Your task to perform on an android device: turn on data saver in the chrome app Image 0: 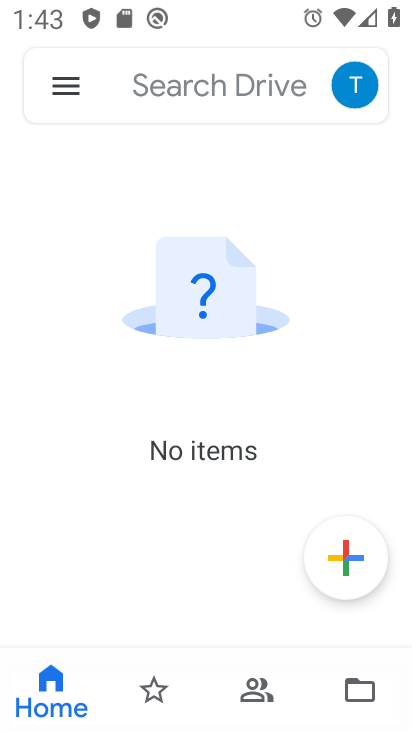
Step 0: press home button
Your task to perform on an android device: turn on data saver in the chrome app Image 1: 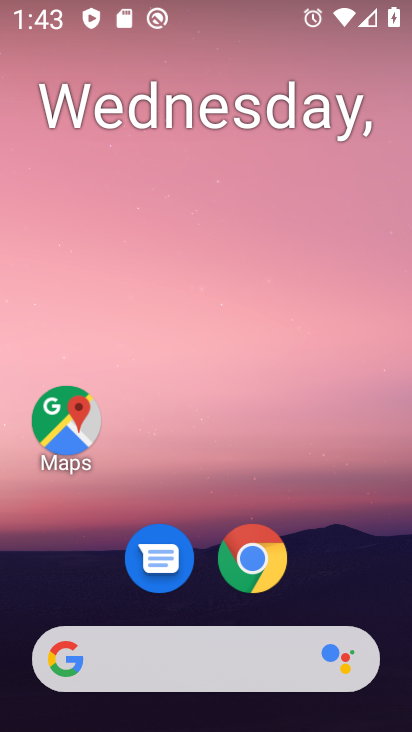
Step 1: drag from (394, 592) to (343, 201)
Your task to perform on an android device: turn on data saver in the chrome app Image 2: 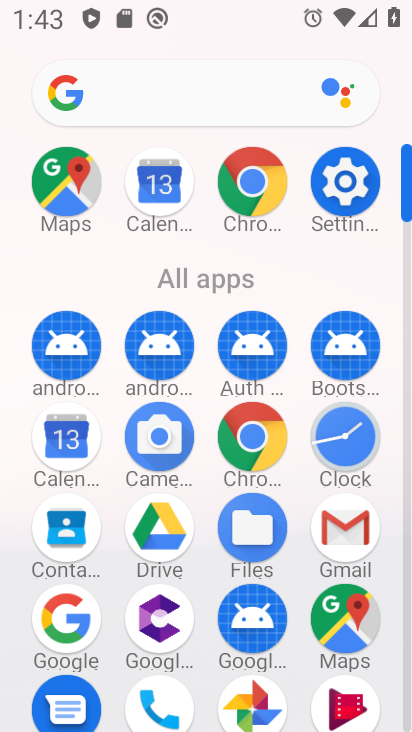
Step 2: click (232, 163)
Your task to perform on an android device: turn on data saver in the chrome app Image 3: 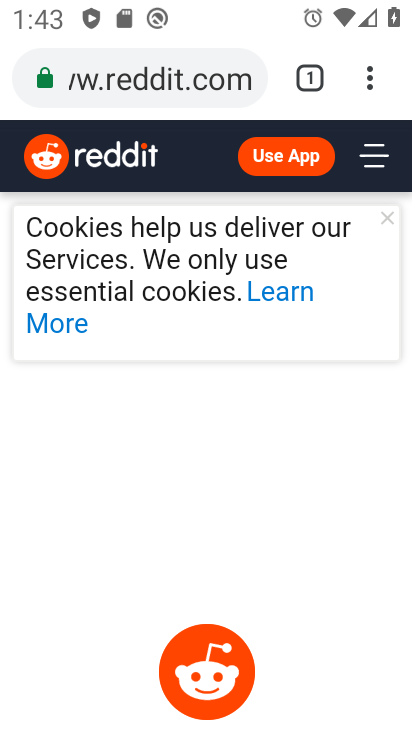
Step 3: click (375, 77)
Your task to perform on an android device: turn on data saver in the chrome app Image 4: 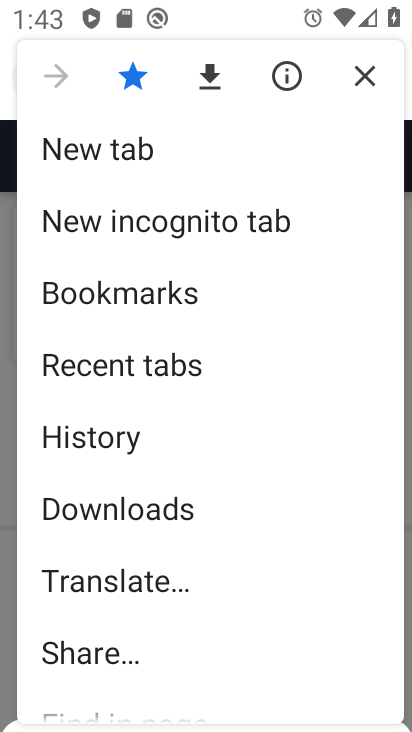
Step 4: drag from (155, 622) to (148, 190)
Your task to perform on an android device: turn on data saver in the chrome app Image 5: 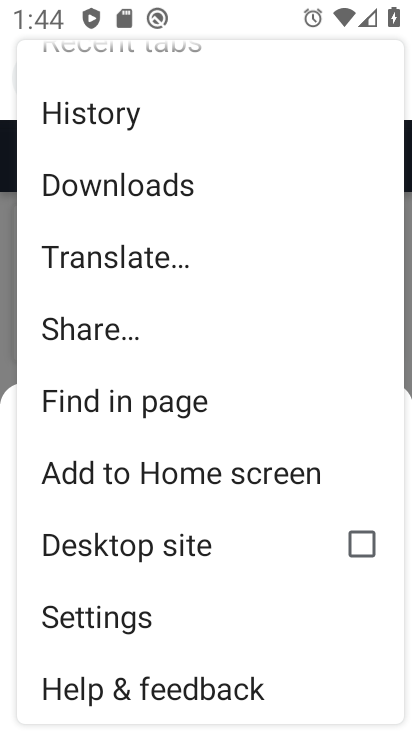
Step 5: click (197, 632)
Your task to perform on an android device: turn on data saver in the chrome app Image 6: 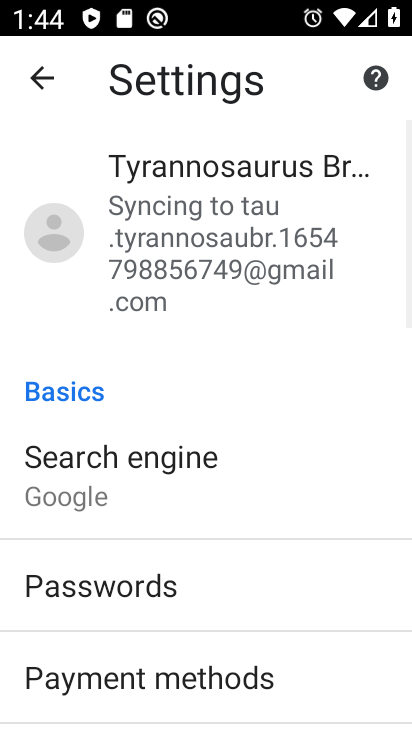
Step 6: drag from (197, 632) to (194, 280)
Your task to perform on an android device: turn on data saver in the chrome app Image 7: 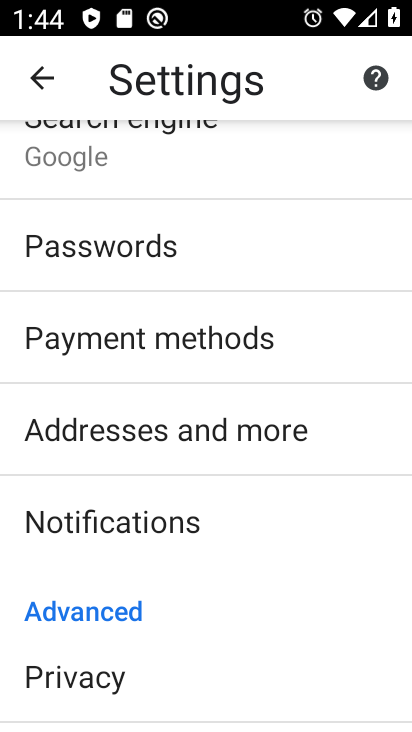
Step 7: drag from (240, 519) to (171, 14)
Your task to perform on an android device: turn on data saver in the chrome app Image 8: 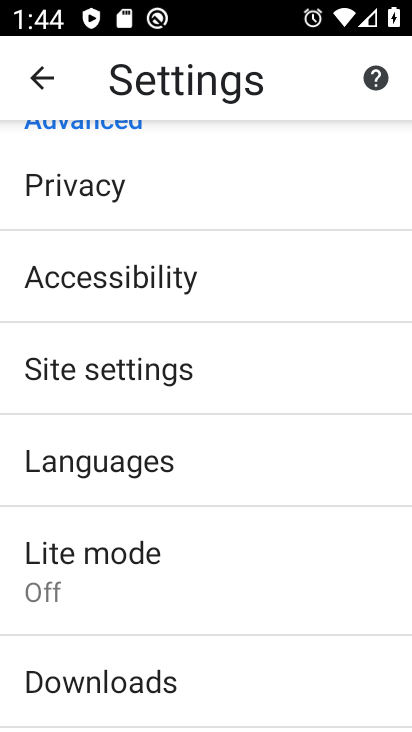
Step 8: click (185, 557)
Your task to perform on an android device: turn on data saver in the chrome app Image 9: 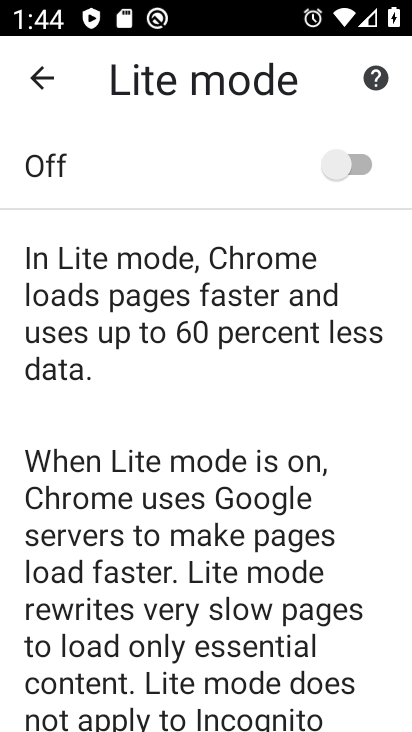
Step 9: click (338, 167)
Your task to perform on an android device: turn on data saver in the chrome app Image 10: 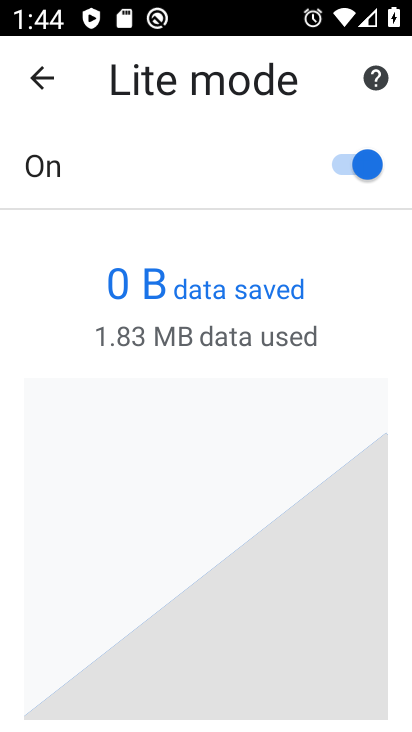
Step 10: task complete